Your task to perform on an android device: open wifi settings Image 0: 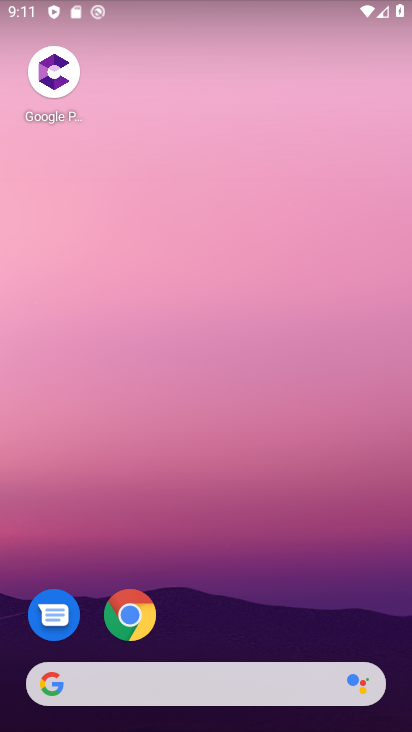
Step 0: drag from (213, 517) to (254, 8)
Your task to perform on an android device: open wifi settings Image 1: 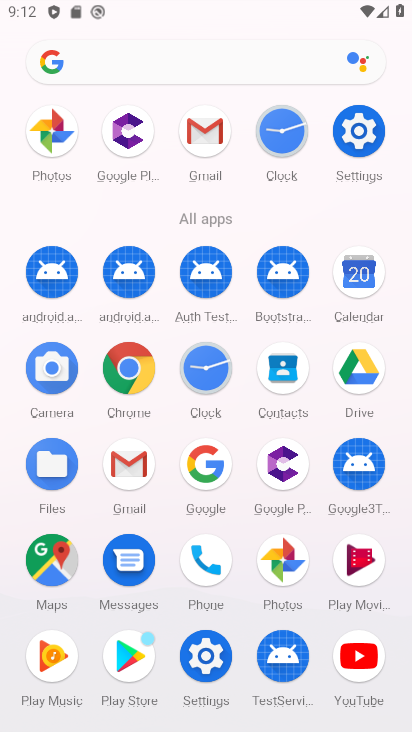
Step 1: click (358, 135)
Your task to perform on an android device: open wifi settings Image 2: 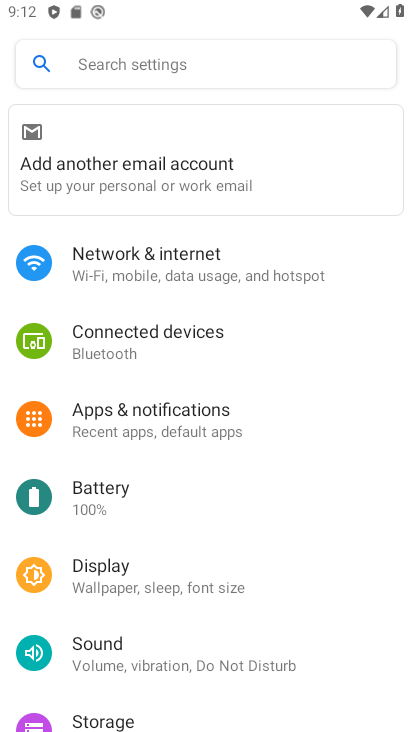
Step 2: click (151, 256)
Your task to perform on an android device: open wifi settings Image 3: 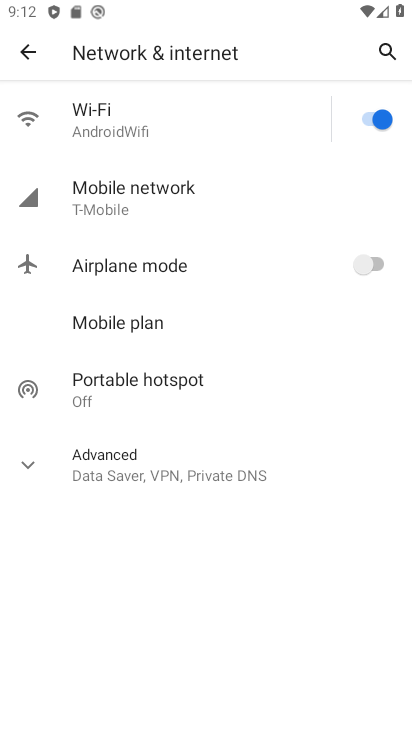
Step 3: click (95, 113)
Your task to perform on an android device: open wifi settings Image 4: 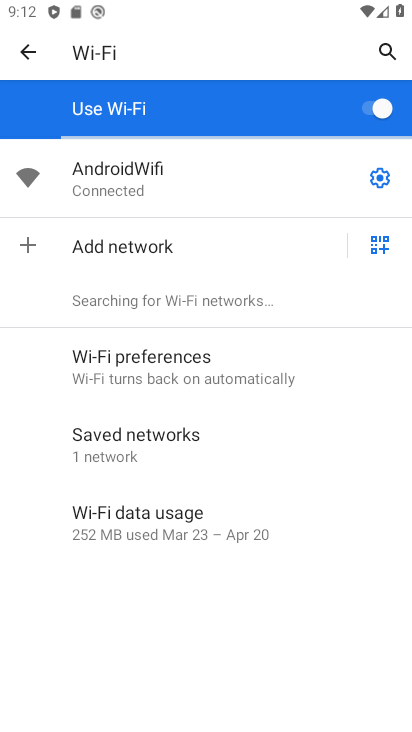
Step 4: task complete